Your task to perform on an android device: turn on improve location accuracy Image 0: 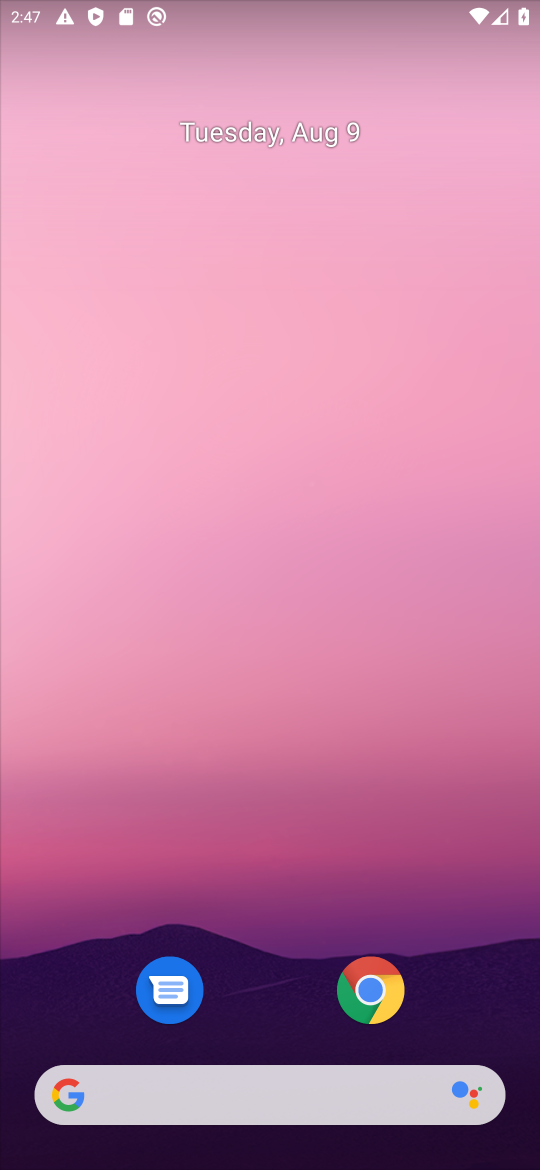
Step 0: click (273, 1101)
Your task to perform on an android device: turn on improve location accuracy Image 1: 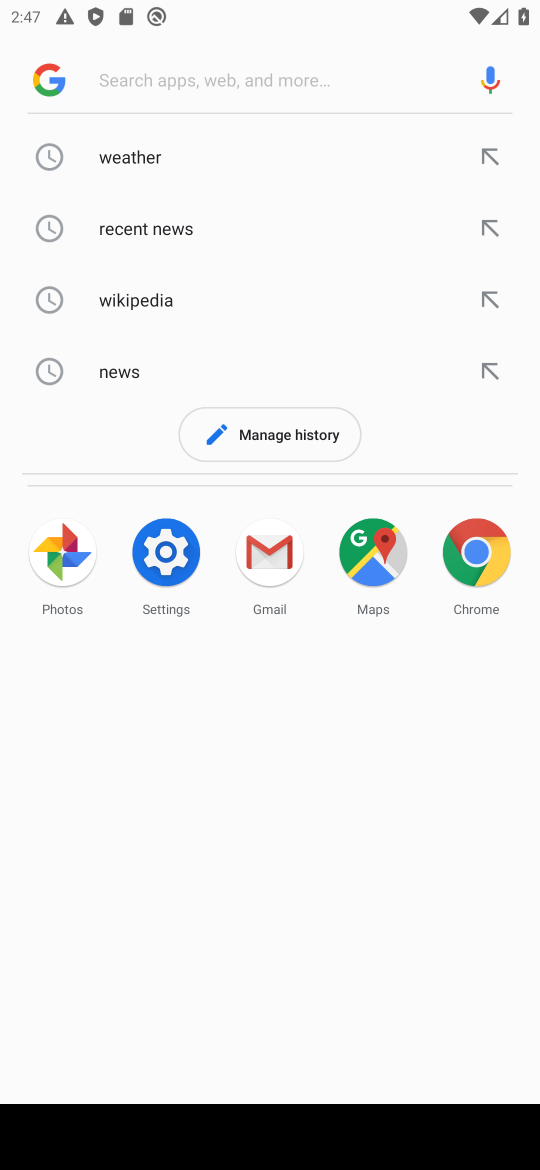
Step 1: press home button
Your task to perform on an android device: turn on improve location accuracy Image 2: 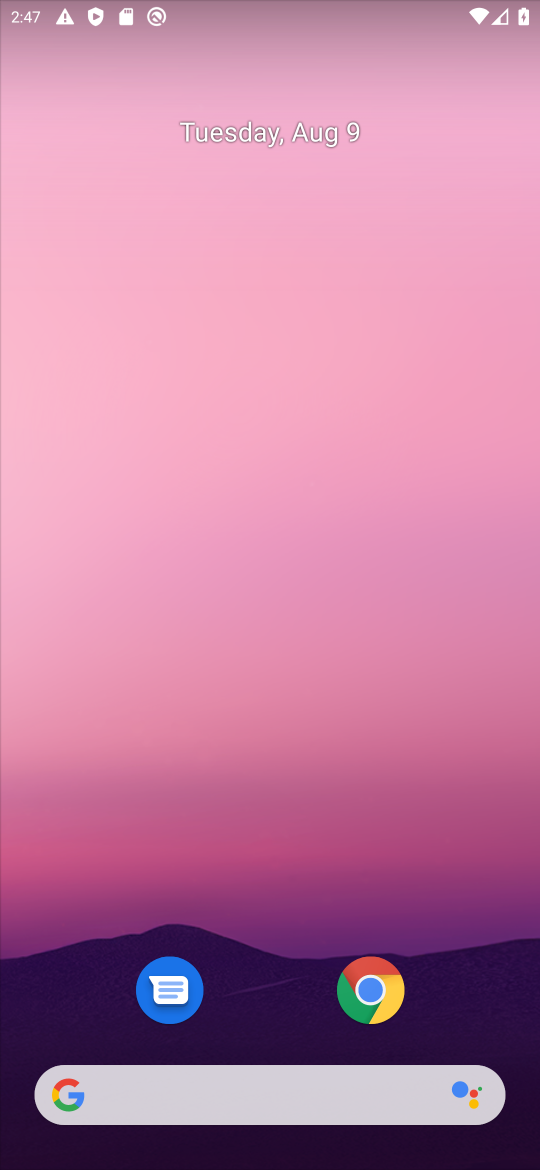
Step 2: drag from (291, 1102) to (25, 156)
Your task to perform on an android device: turn on improve location accuracy Image 3: 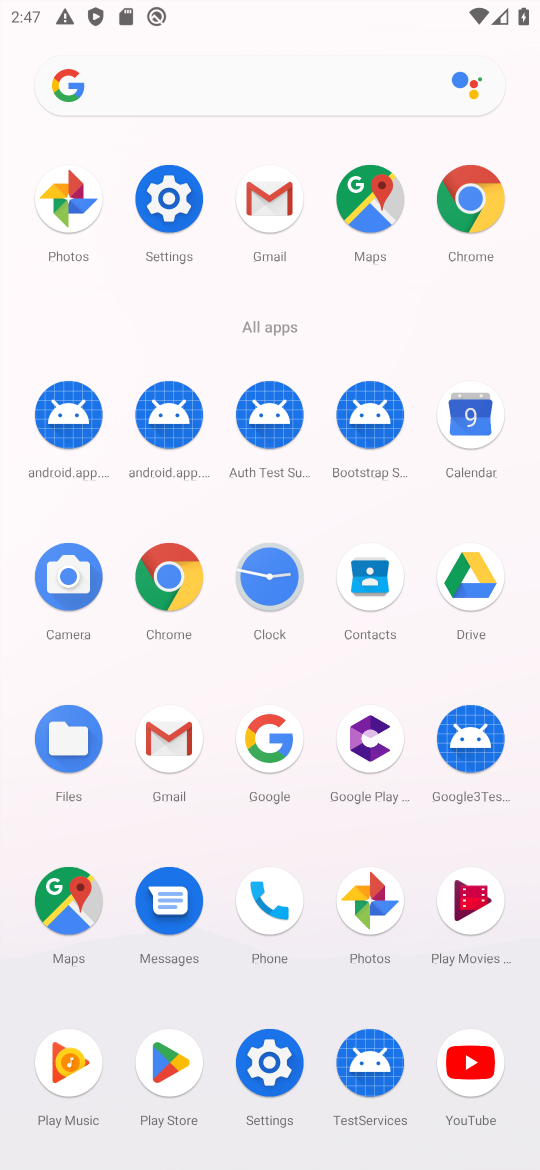
Step 3: click (269, 1065)
Your task to perform on an android device: turn on improve location accuracy Image 4: 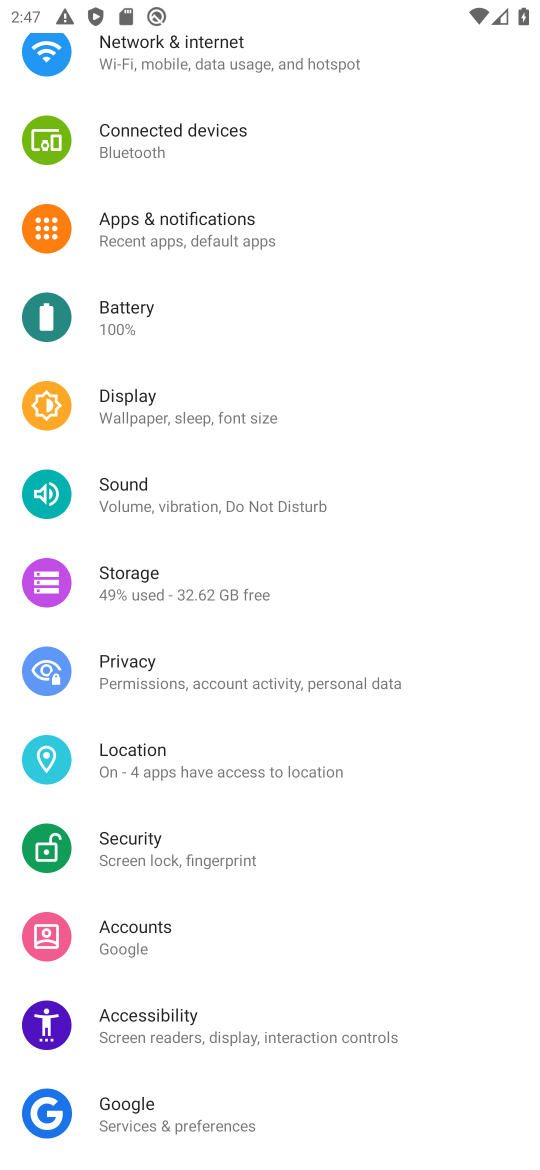
Step 4: click (203, 771)
Your task to perform on an android device: turn on improve location accuracy Image 5: 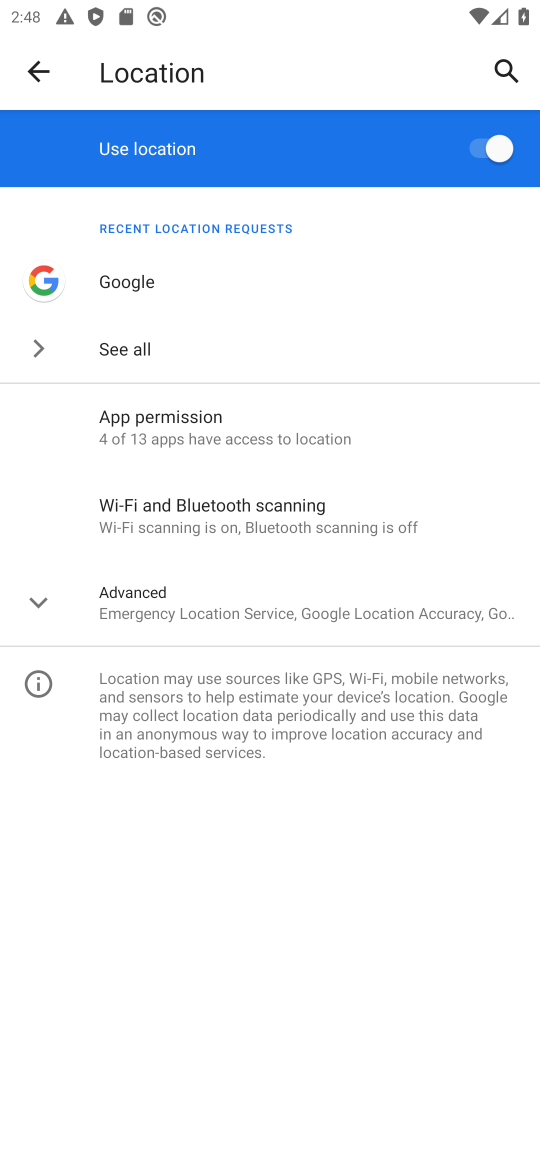
Step 5: click (217, 631)
Your task to perform on an android device: turn on improve location accuracy Image 6: 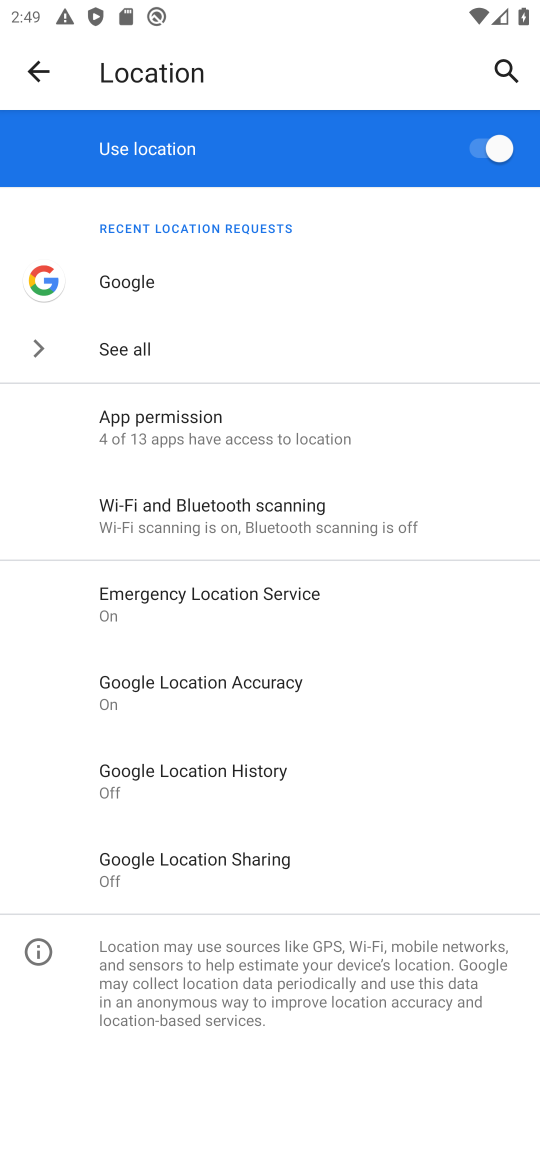
Step 6: click (234, 692)
Your task to perform on an android device: turn on improve location accuracy Image 7: 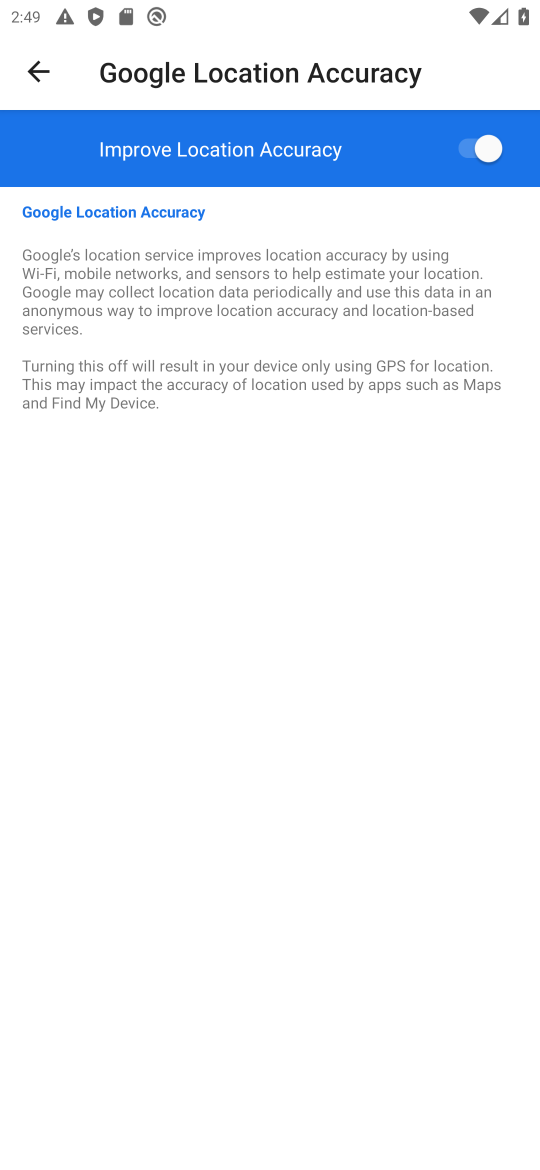
Step 7: task complete